Your task to perform on an android device: Show me productivity apps on the Play Store Image 0: 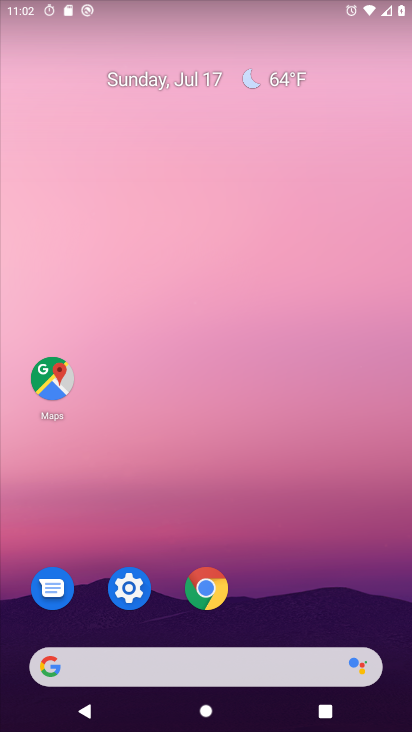
Step 0: drag from (102, 617) to (113, 123)
Your task to perform on an android device: Show me productivity apps on the Play Store Image 1: 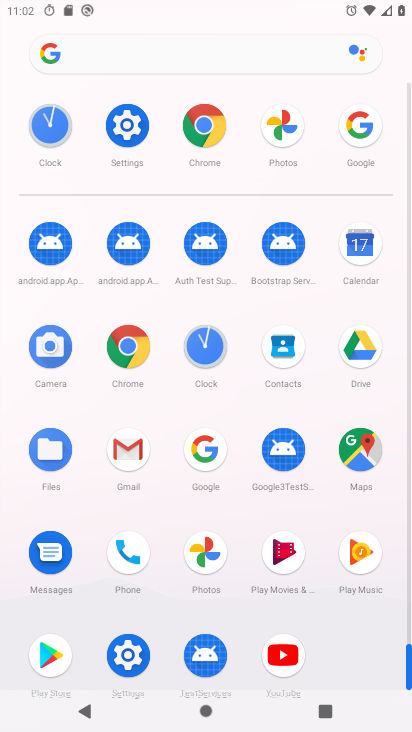
Step 1: click (39, 652)
Your task to perform on an android device: Show me productivity apps on the Play Store Image 2: 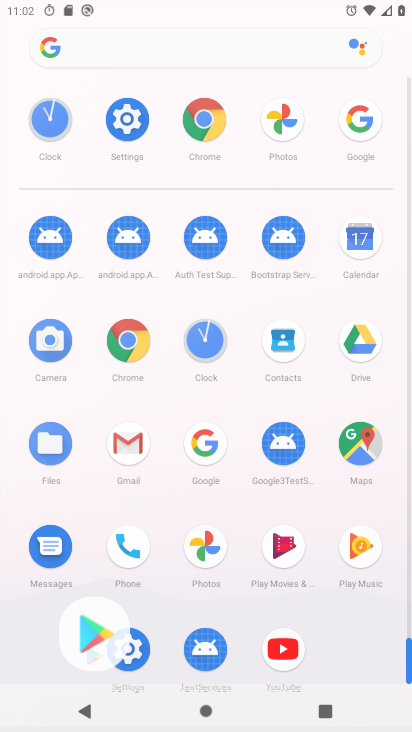
Step 2: click (47, 653)
Your task to perform on an android device: Show me productivity apps on the Play Store Image 3: 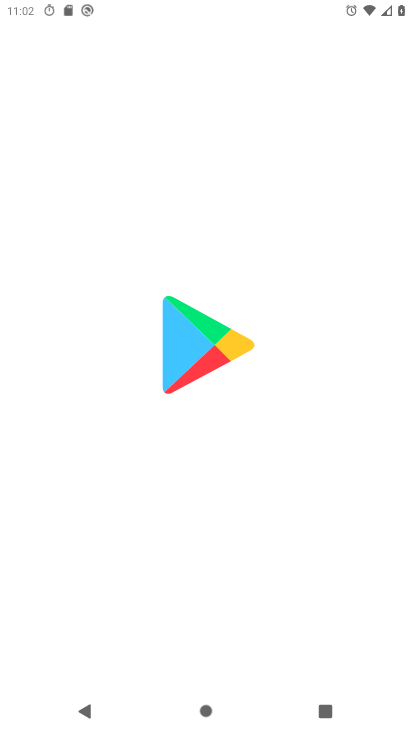
Step 3: click (53, 660)
Your task to perform on an android device: Show me productivity apps on the Play Store Image 4: 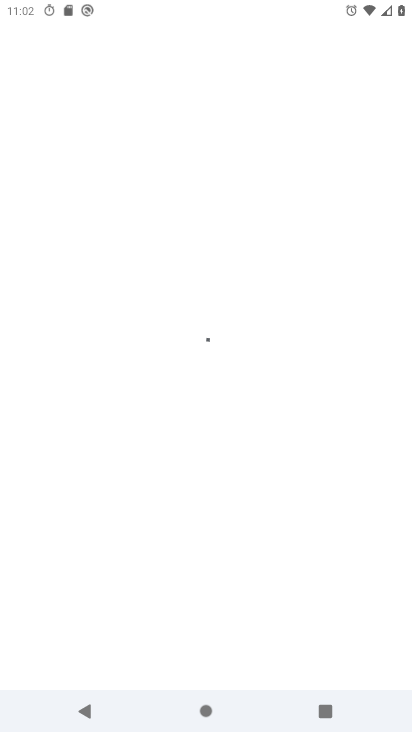
Step 4: click (54, 661)
Your task to perform on an android device: Show me productivity apps on the Play Store Image 5: 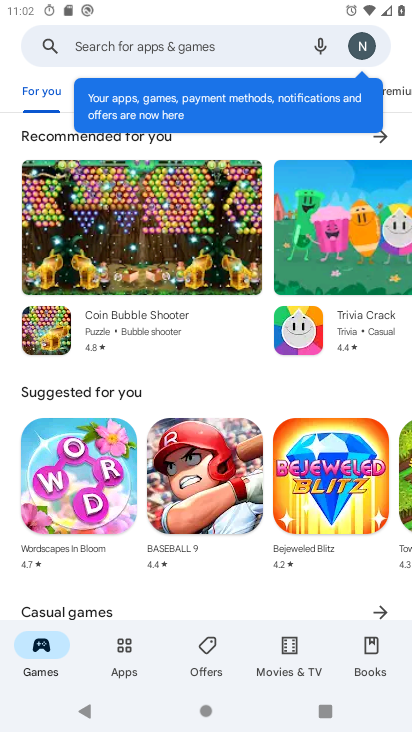
Step 5: click (105, 52)
Your task to perform on an android device: Show me productivity apps on the Play Store Image 6: 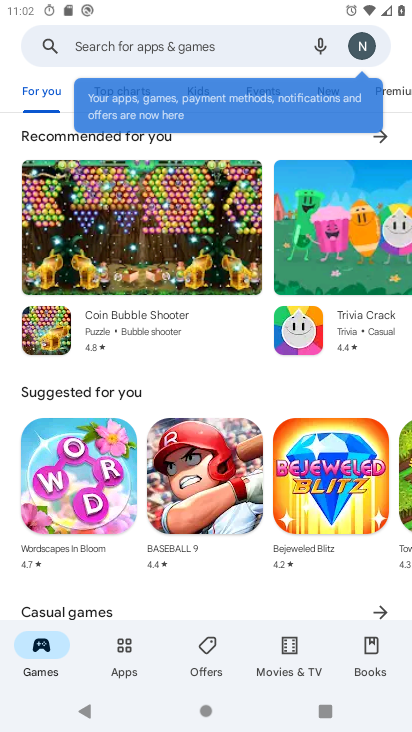
Step 6: click (103, 53)
Your task to perform on an android device: Show me productivity apps on the Play Store Image 7: 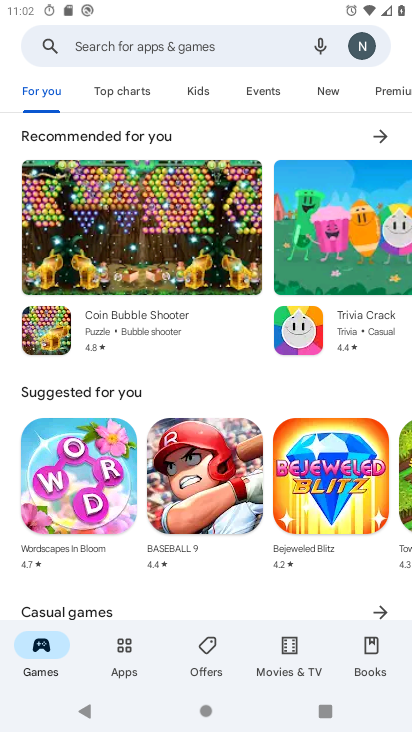
Step 7: click (105, 54)
Your task to perform on an android device: Show me productivity apps on the Play Store Image 8: 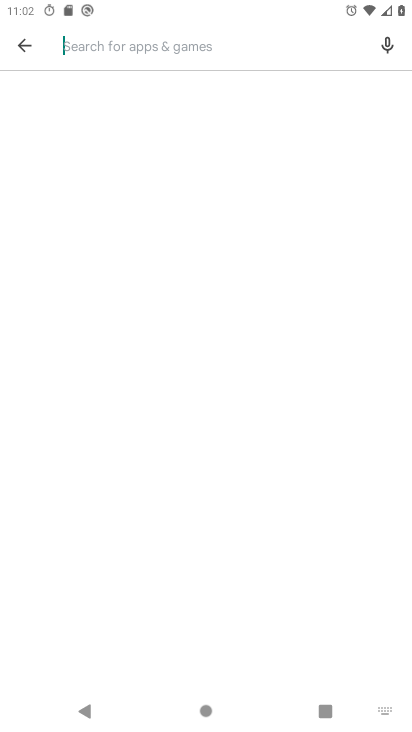
Step 8: click (107, 56)
Your task to perform on an android device: Show me productivity apps on the Play Store Image 9: 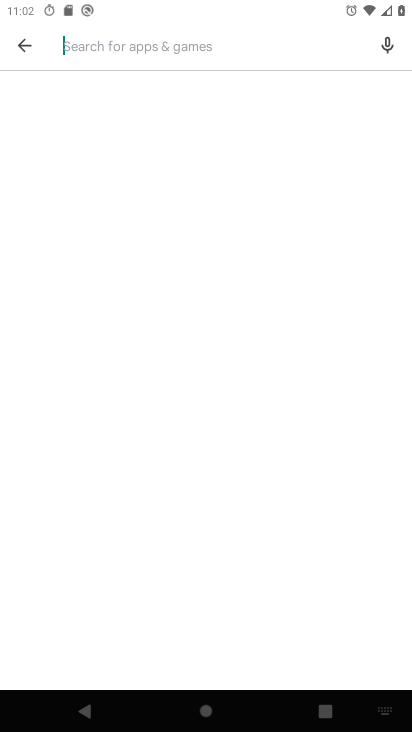
Step 9: click (107, 57)
Your task to perform on an android device: Show me productivity apps on the Play Store Image 10: 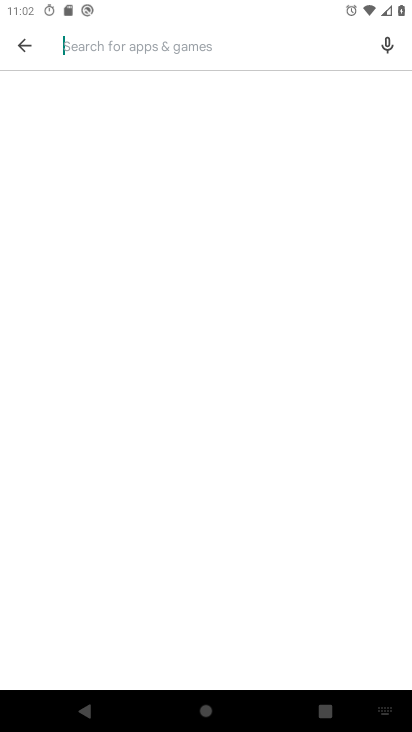
Step 10: type "productivity apps"
Your task to perform on an android device: Show me productivity apps on the Play Store Image 11: 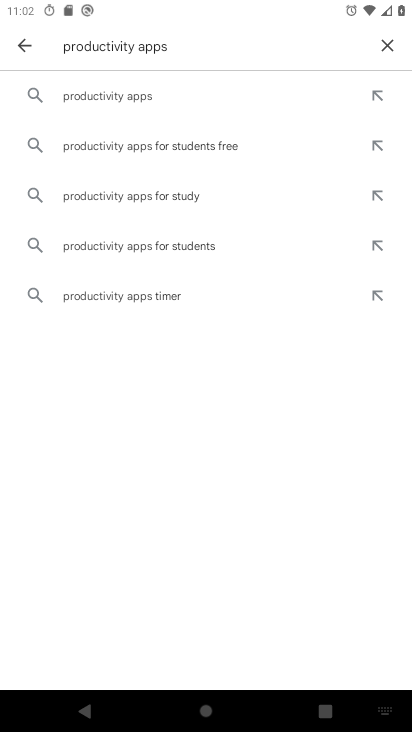
Step 11: click (114, 98)
Your task to perform on an android device: Show me productivity apps on the Play Store Image 12: 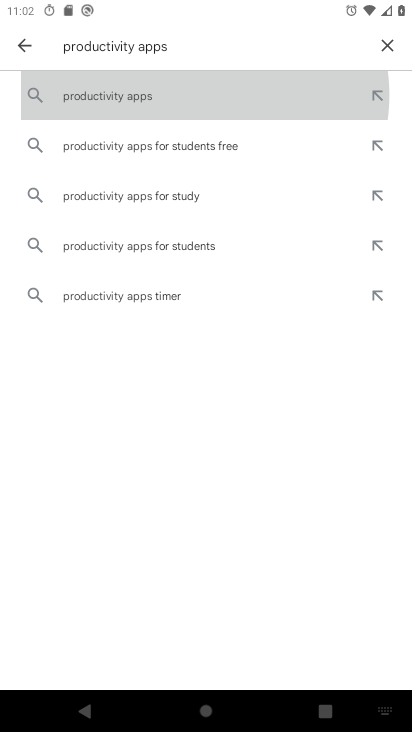
Step 12: click (114, 98)
Your task to perform on an android device: Show me productivity apps on the Play Store Image 13: 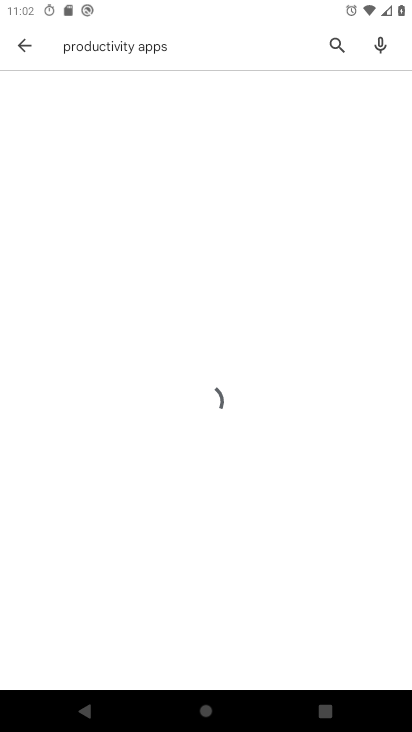
Step 13: click (114, 101)
Your task to perform on an android device: Show me productivity apps on the Play Store Image 14: 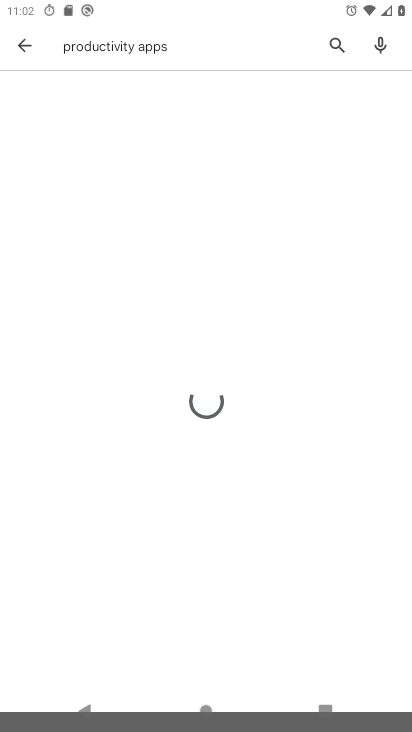
Step 14: click (116, 101)
Your task to perform on an android device: Show me productivity apps on the Play Store Image 15: 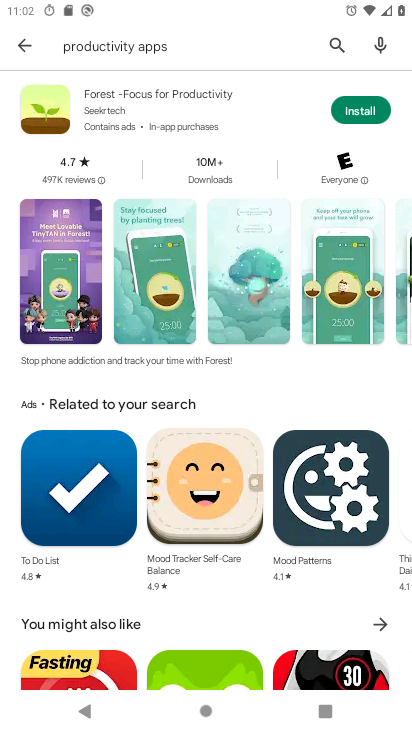
Step 15: task complete